Your task to perform on an android device: open app "VLC for Android" (install if not already installed) Image 0: 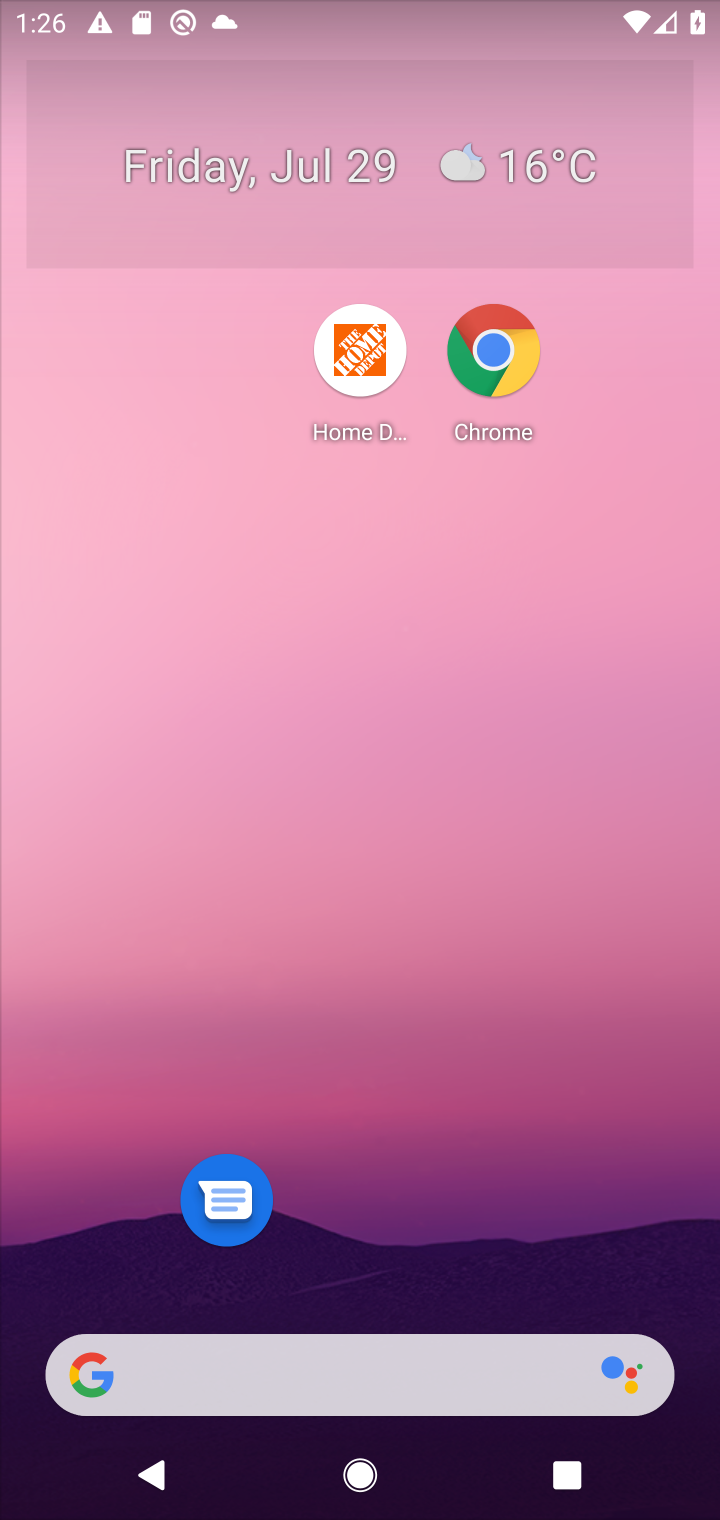
Step 0: drag from (464, 1292) to (503, 122)
Your task to perform on an android device: open app "VLC for Android" (install if not already installed) Image 1: 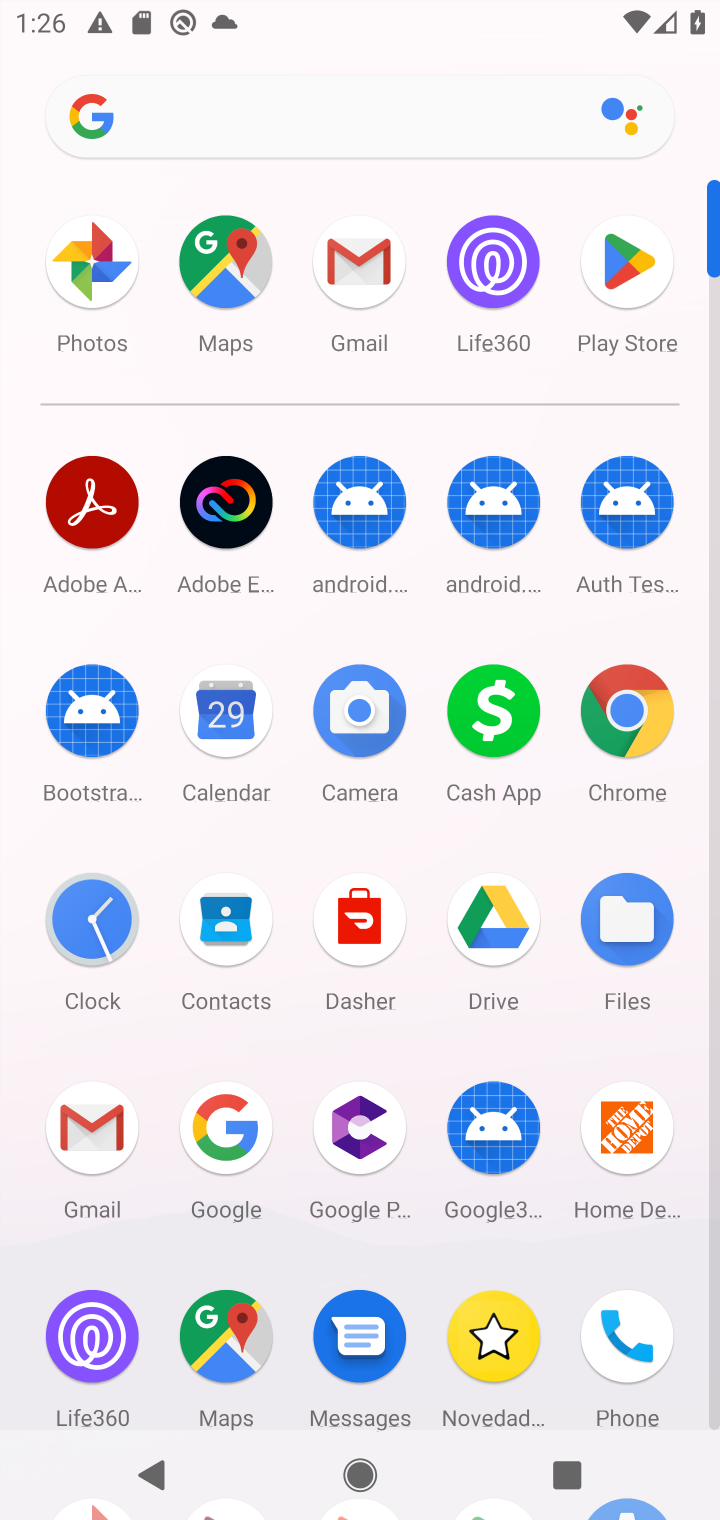
Step 1: click (618, 252)
Your task to perform on an android device: open app "VLC for Android" (install if not already installed) Image 2: 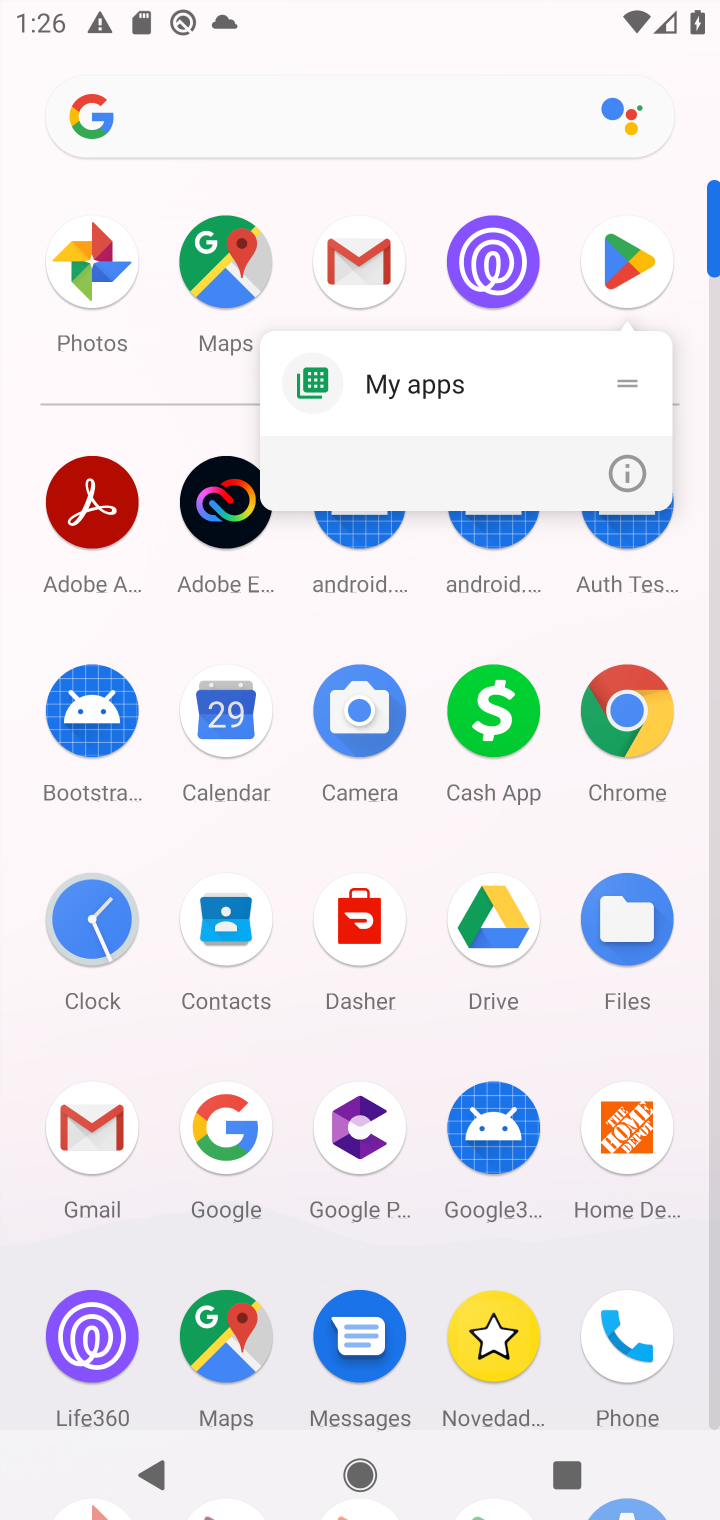
Step 2: click (614, 263)
Your task to perform on an android device: open app "VLC for Android" (install if not already installed) Image 3: 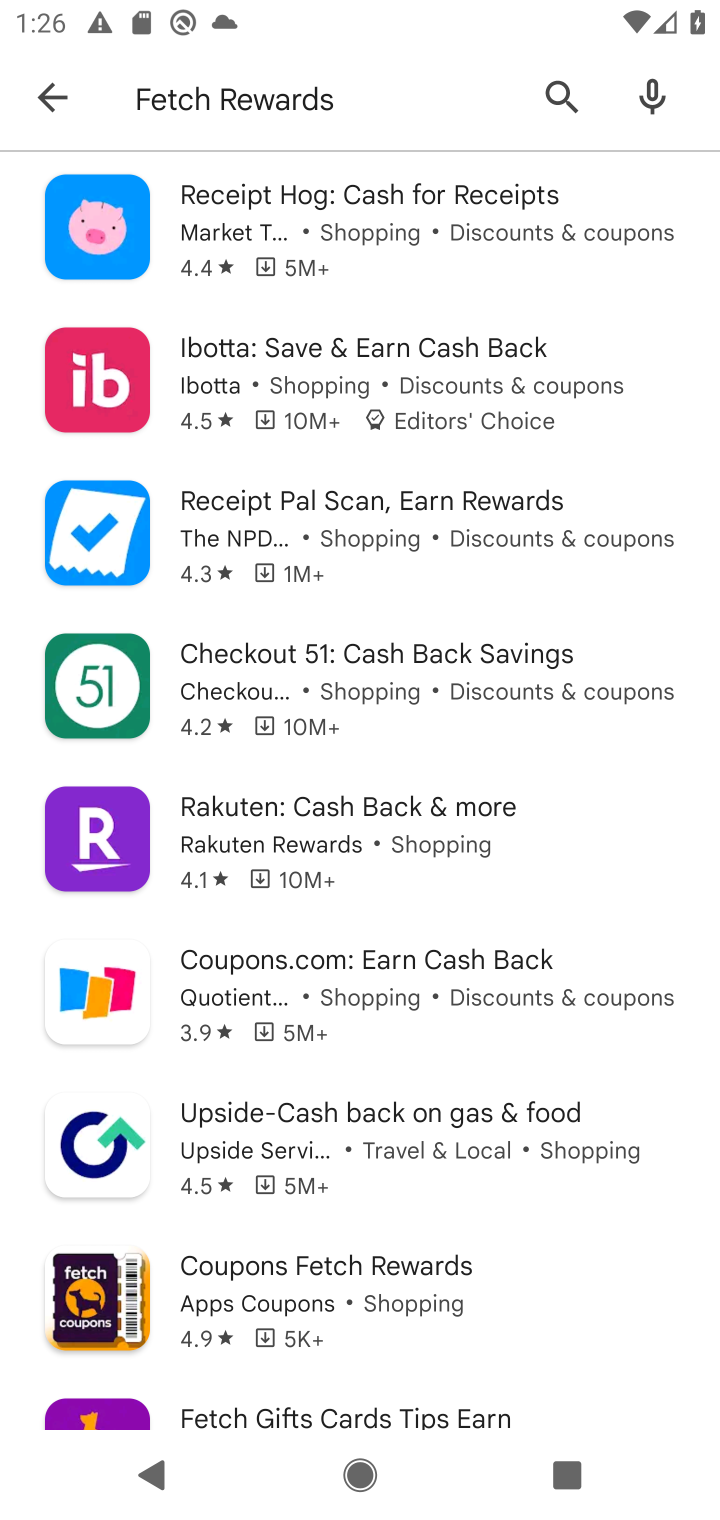
Step 3: click (351, 120)
Your task to perform on an android device: open app "VLC for Android" (install if not already installed) Image 4: 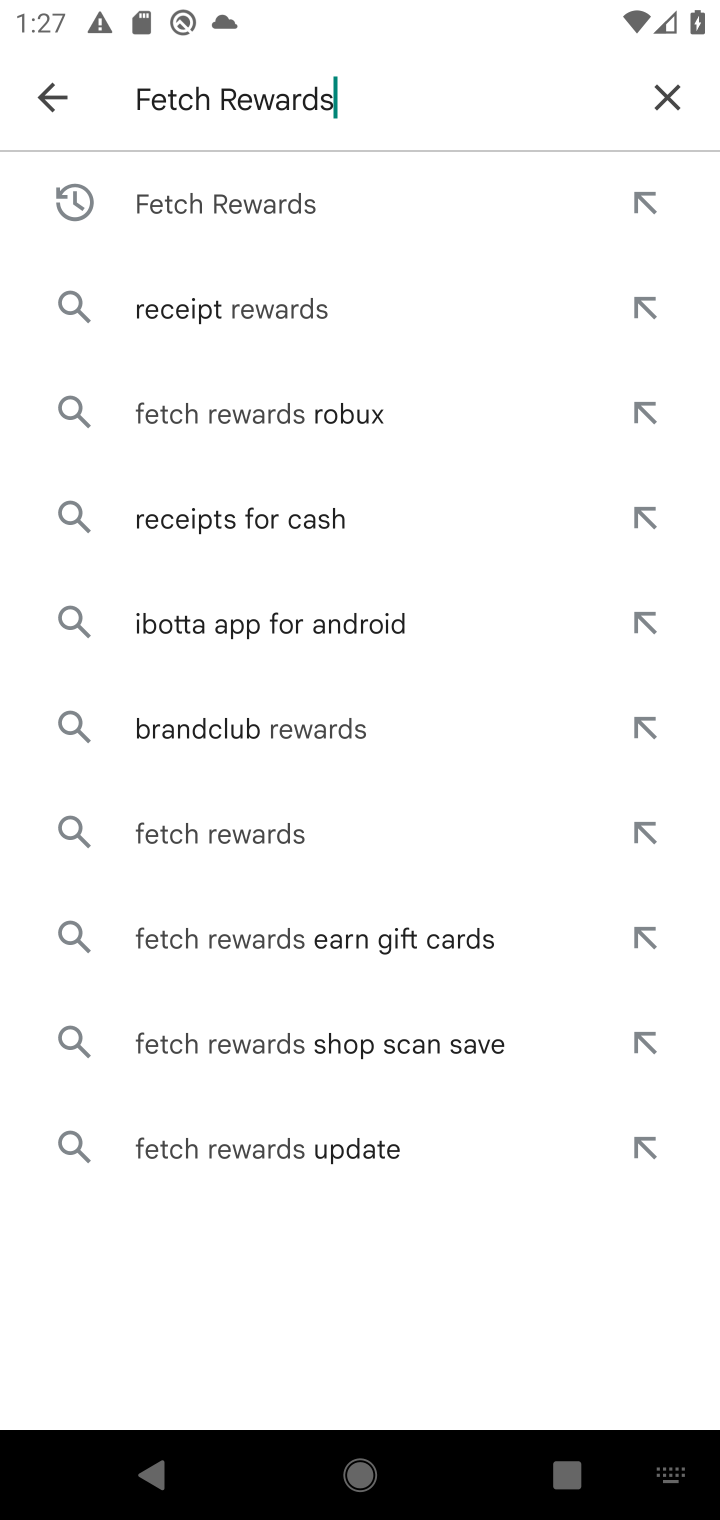
Step 4: click (658, 77)
Your task to perform on an android device: open app "VLC for Android" (install if not already installed) Image 5: 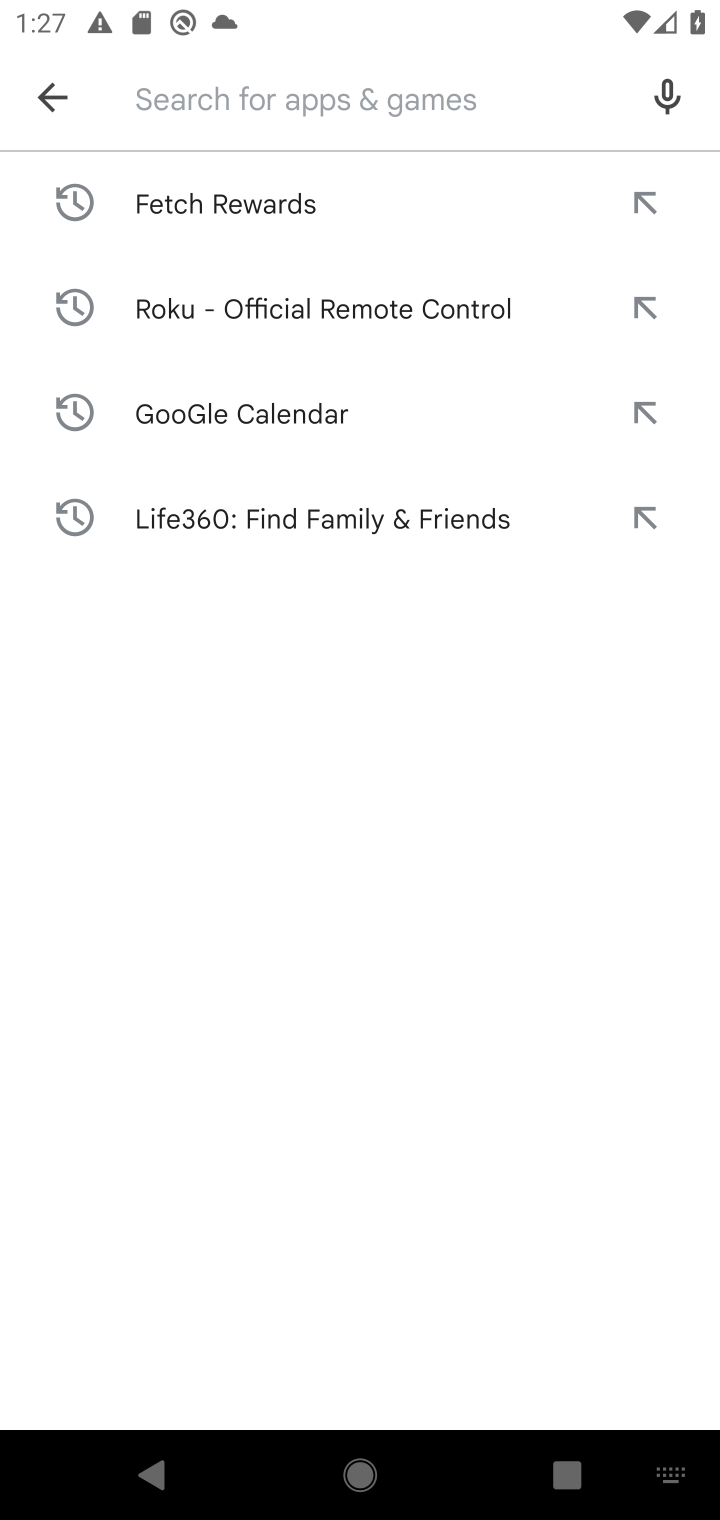
Step 5: type "VLC for Android"
Your task to perform on an android device: open app "VLC for Android" (install if not already installed) Image 6: 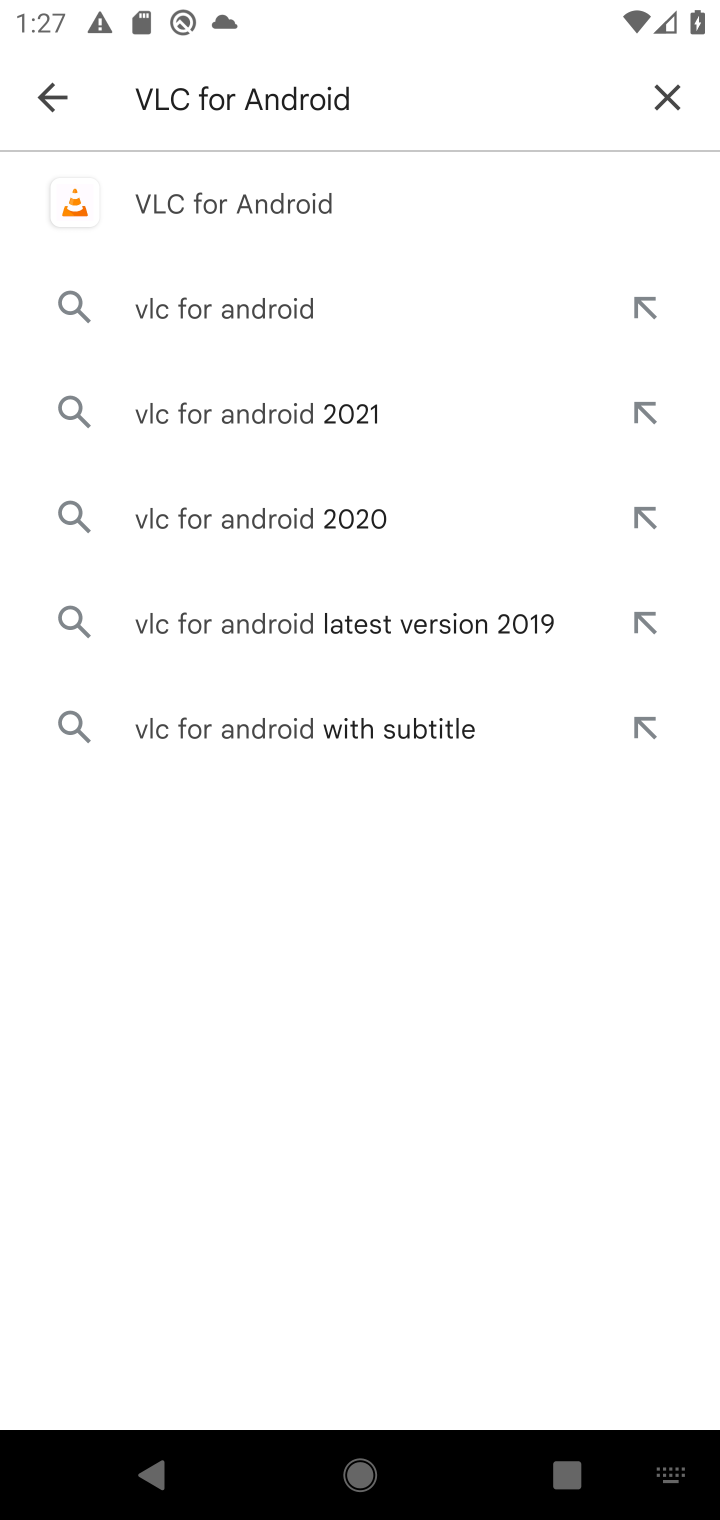
Step 6: press enter
Your task to perform on an android device: open app "VLC for Android" (install if not already installed) Image 7: 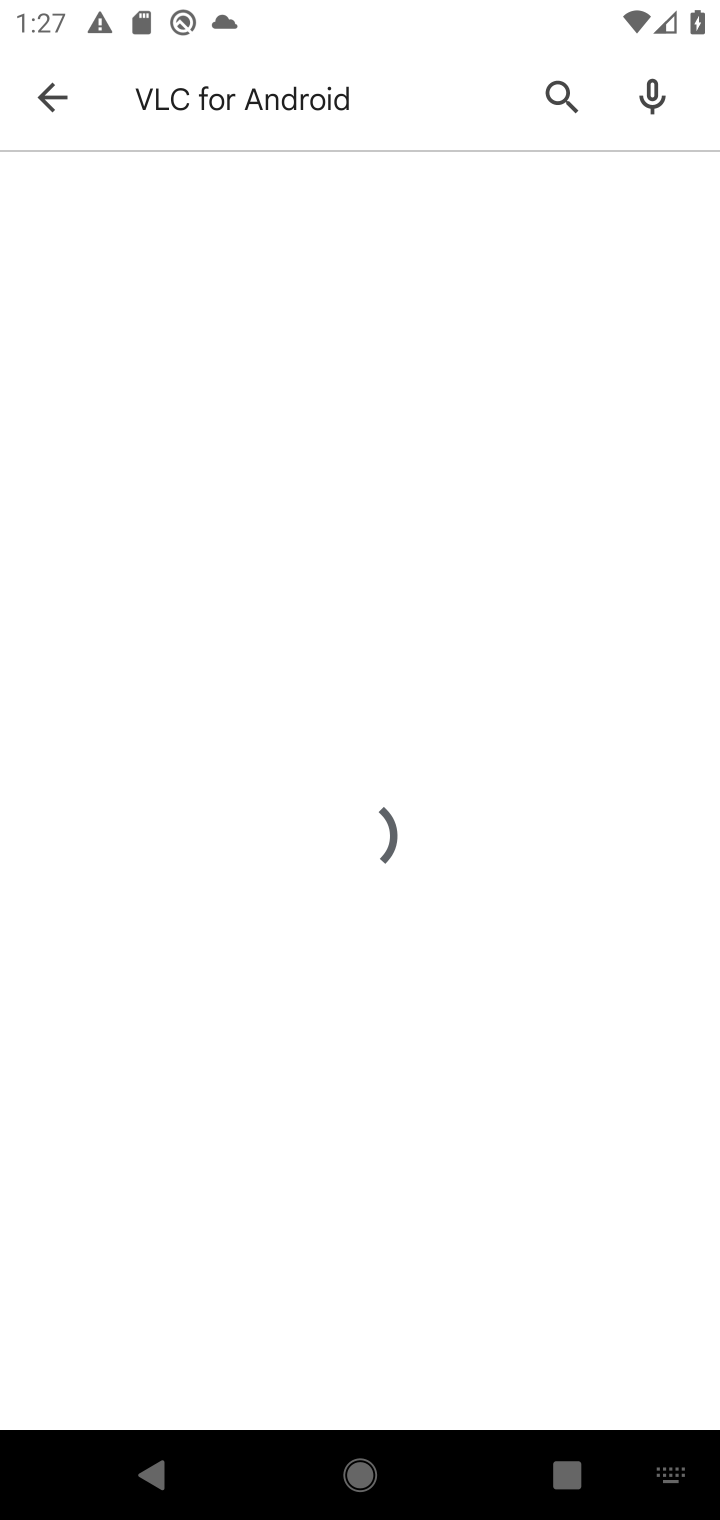
Step 7: press enter
Your task to perform on an android device: open app "VLC for Android" (install if not already installed) Image 8: 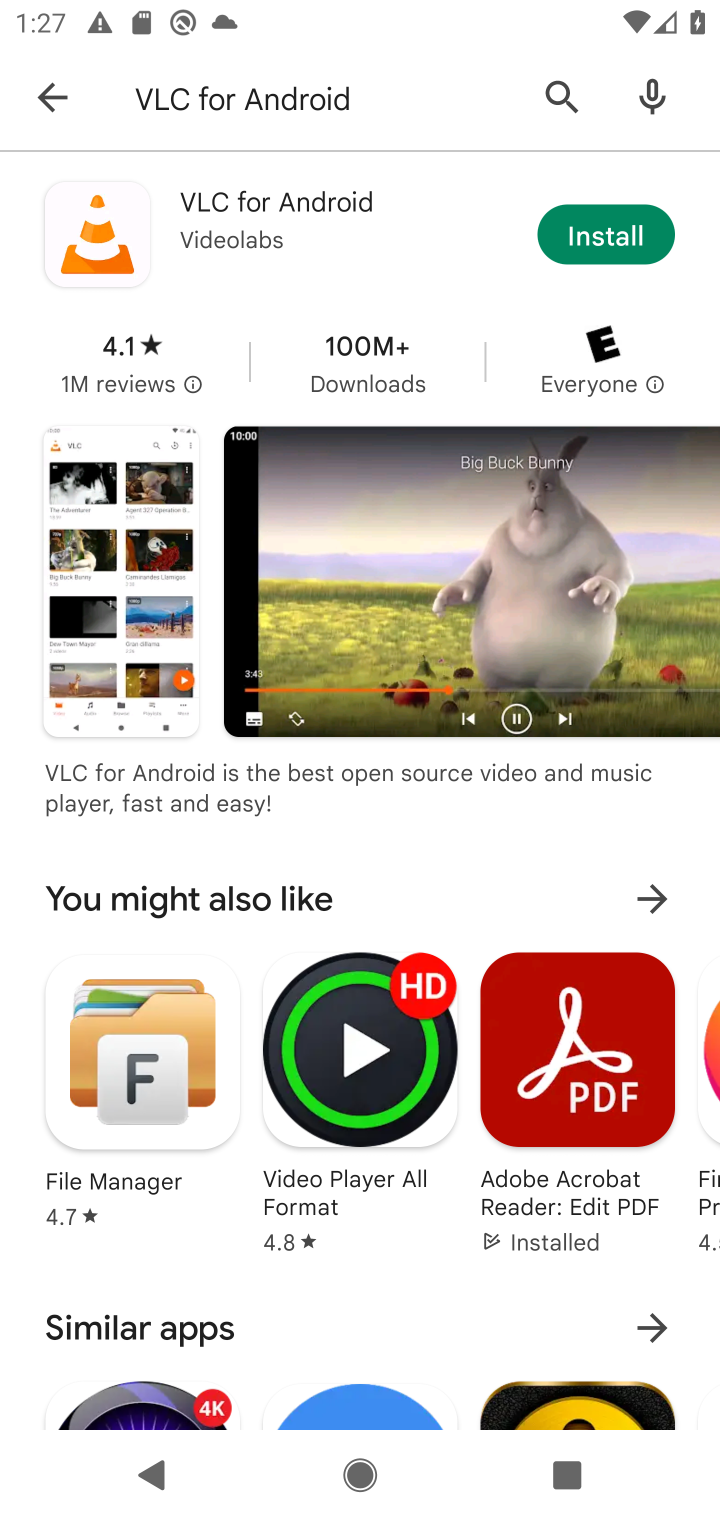
Step 8: press enter
Your task to perform on an android device: open app "VLC for Android" (install if not already installed) Image 9: 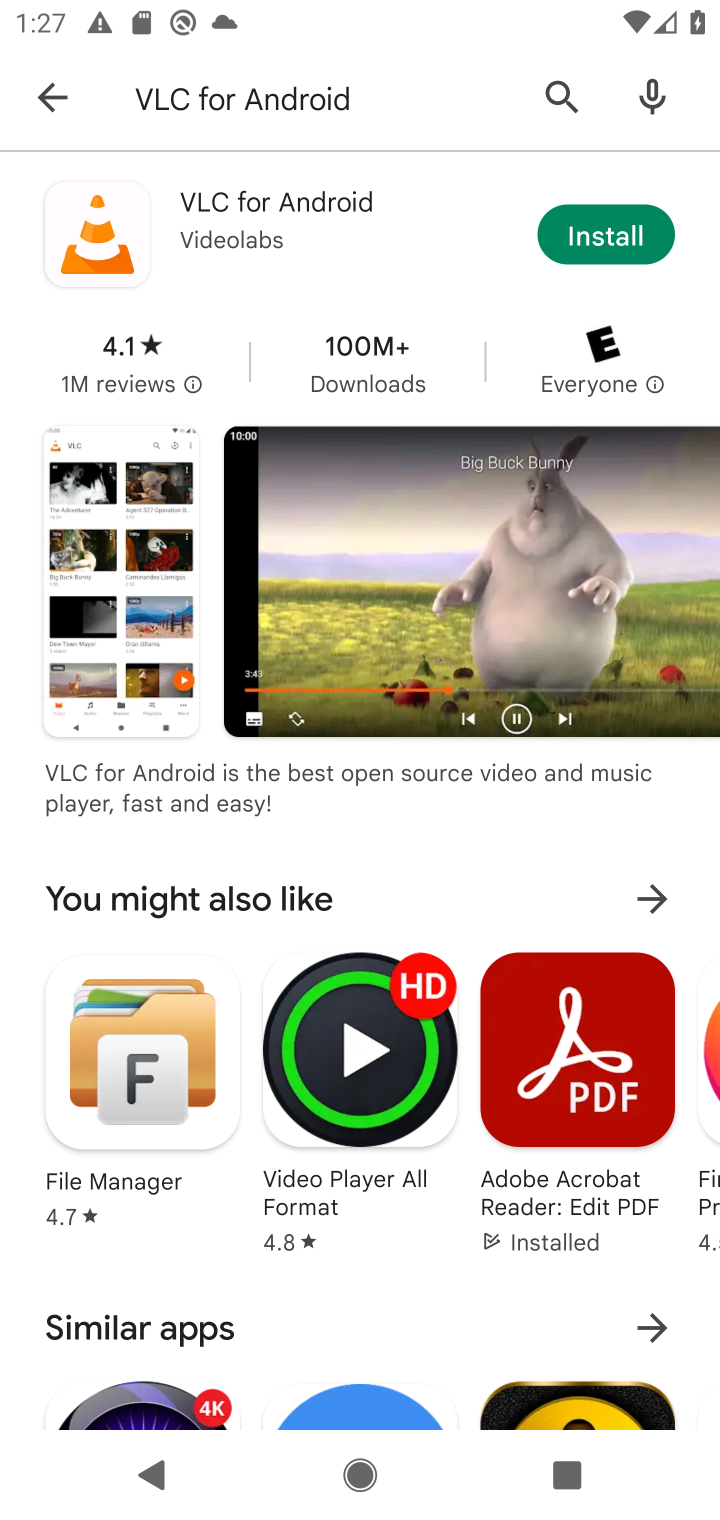
Step 9: click (312, 218)
Your task to perform on an android device: open app "VLC for Android" (install if not already installed) Image 10: 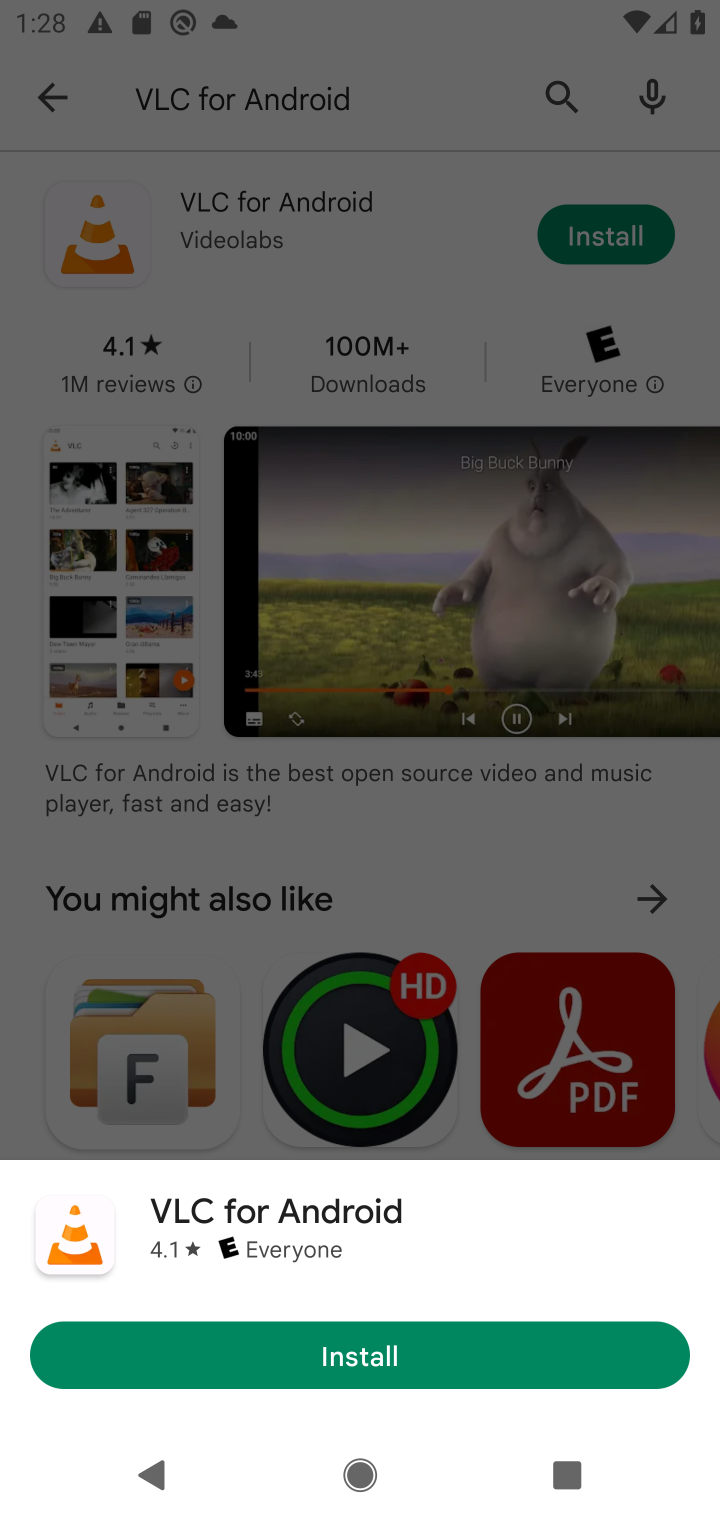
Step 10: click (418, 1375)
Your task to perform on an android device: open app "VLC for Android" (install if not already installed) Image 11: 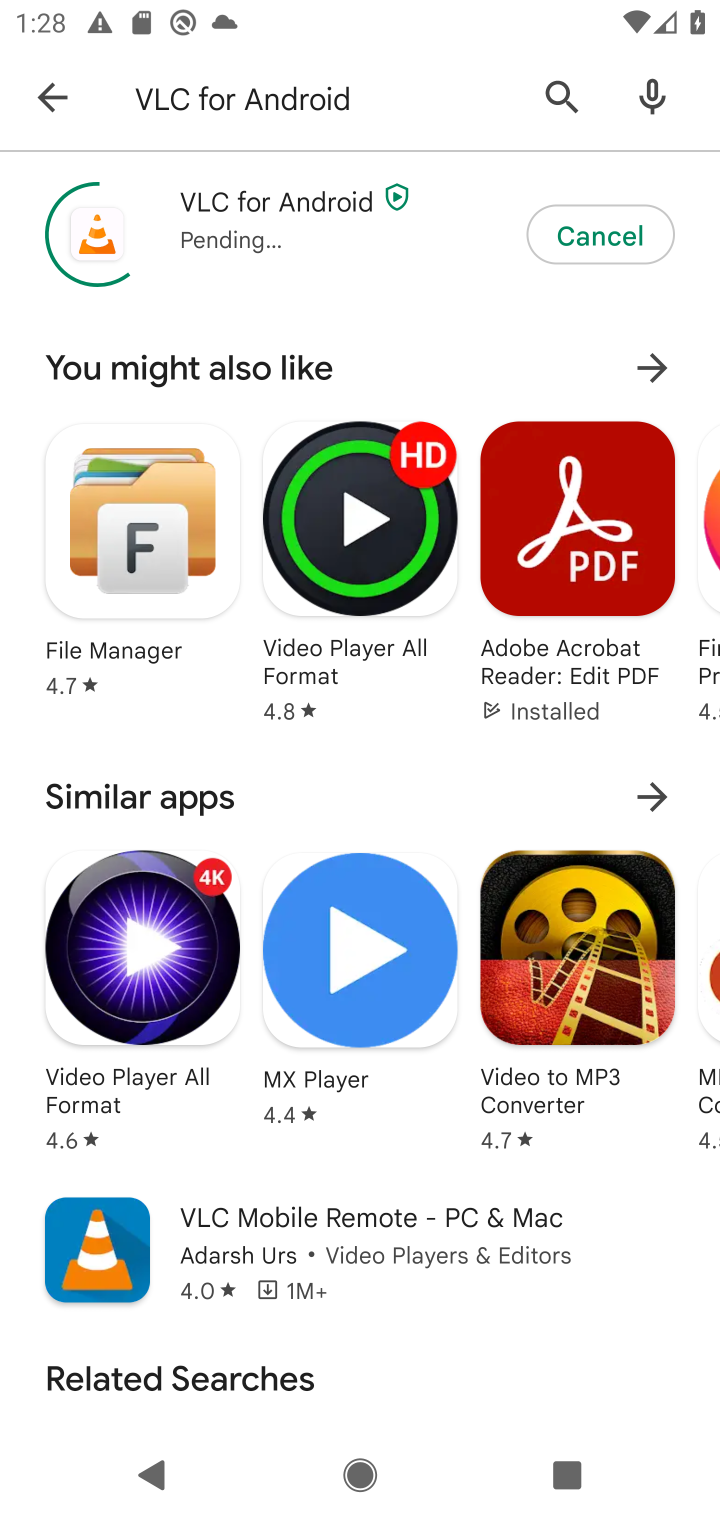
Step 11: click (330, 202)
Your task to perform on an android device: open app "VLC for Android" (install if not already installed) Image 12: 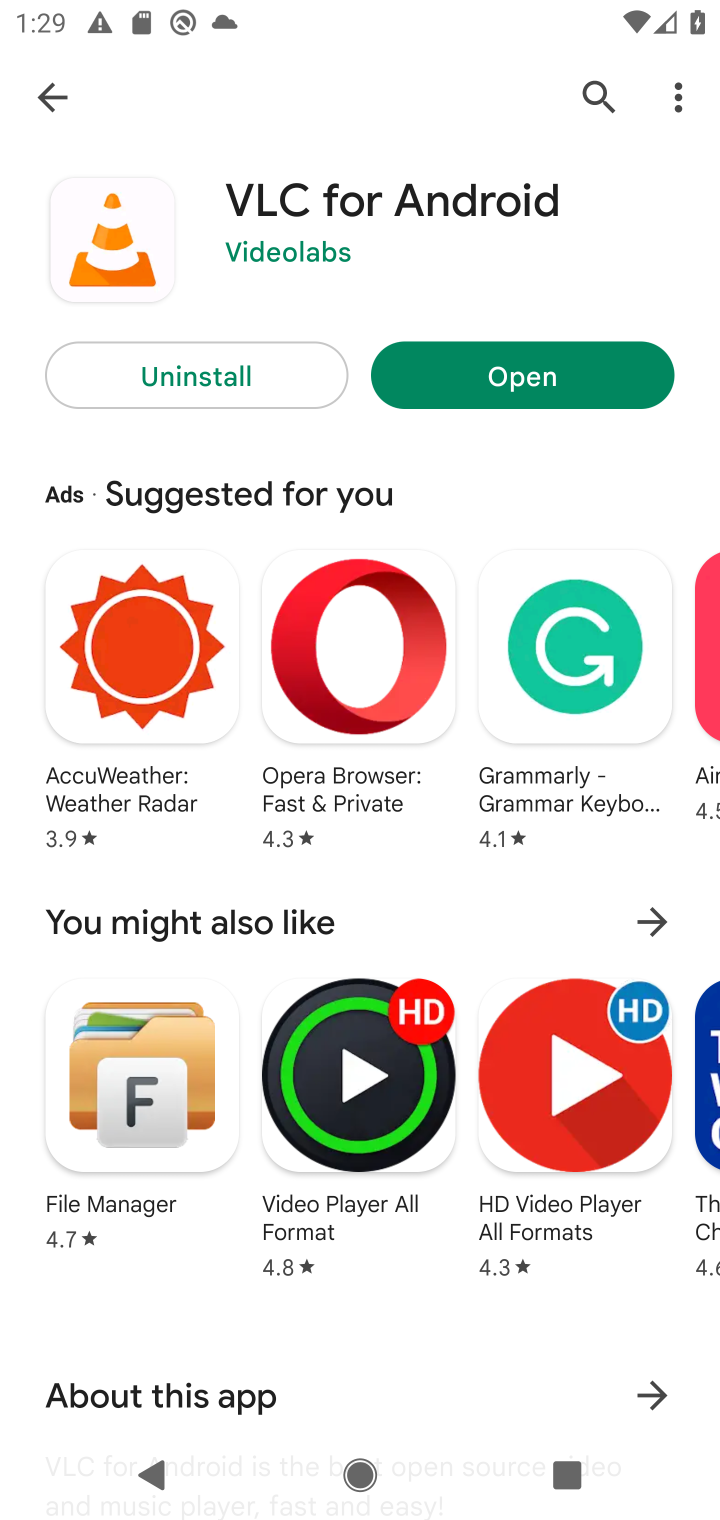
Step 12: click (588, 356)
Your task to perform on an android device: open app "VLC for Android" (install if not already installed) Image 13: 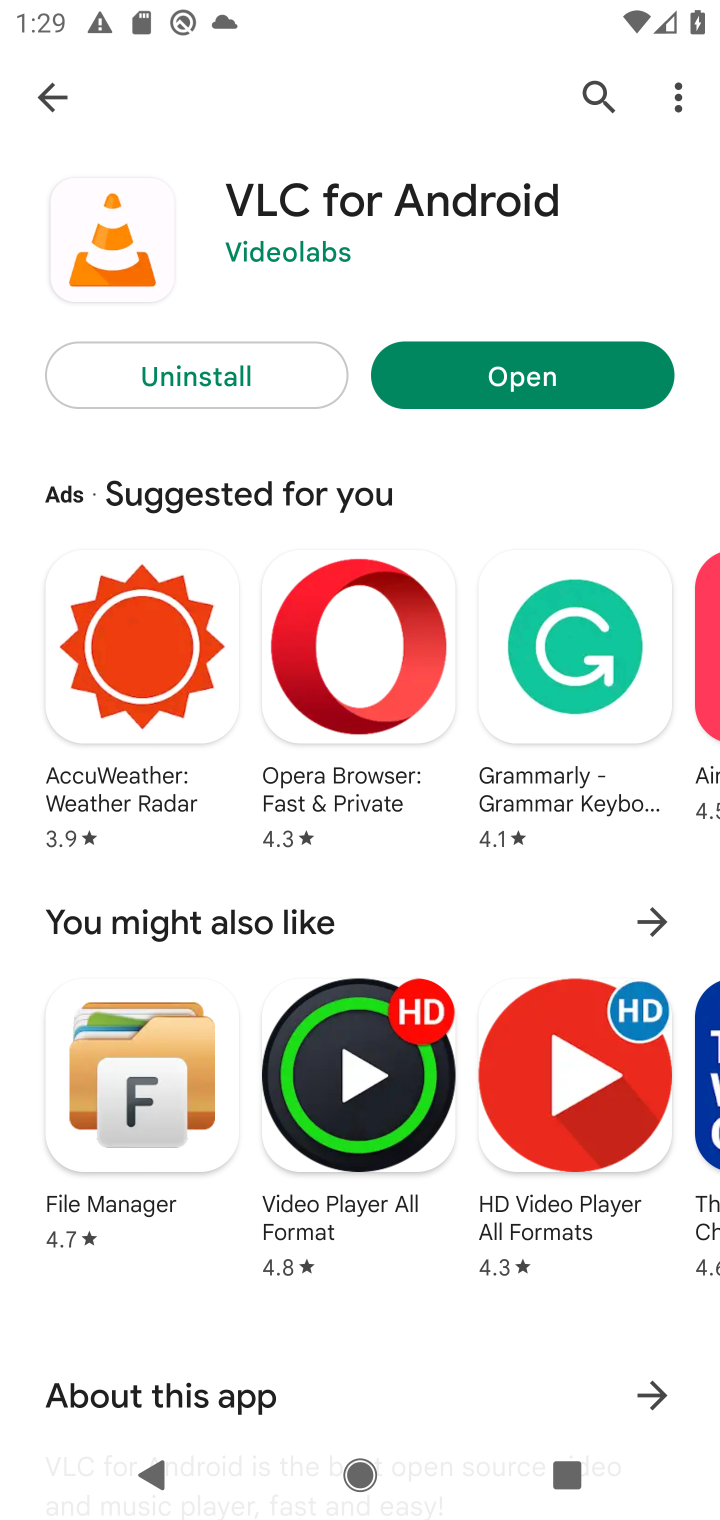
Step 13: click (577, 370)
Your task to perform on an android device: open app "VLC for Android" (install if not already installed) Image 14: 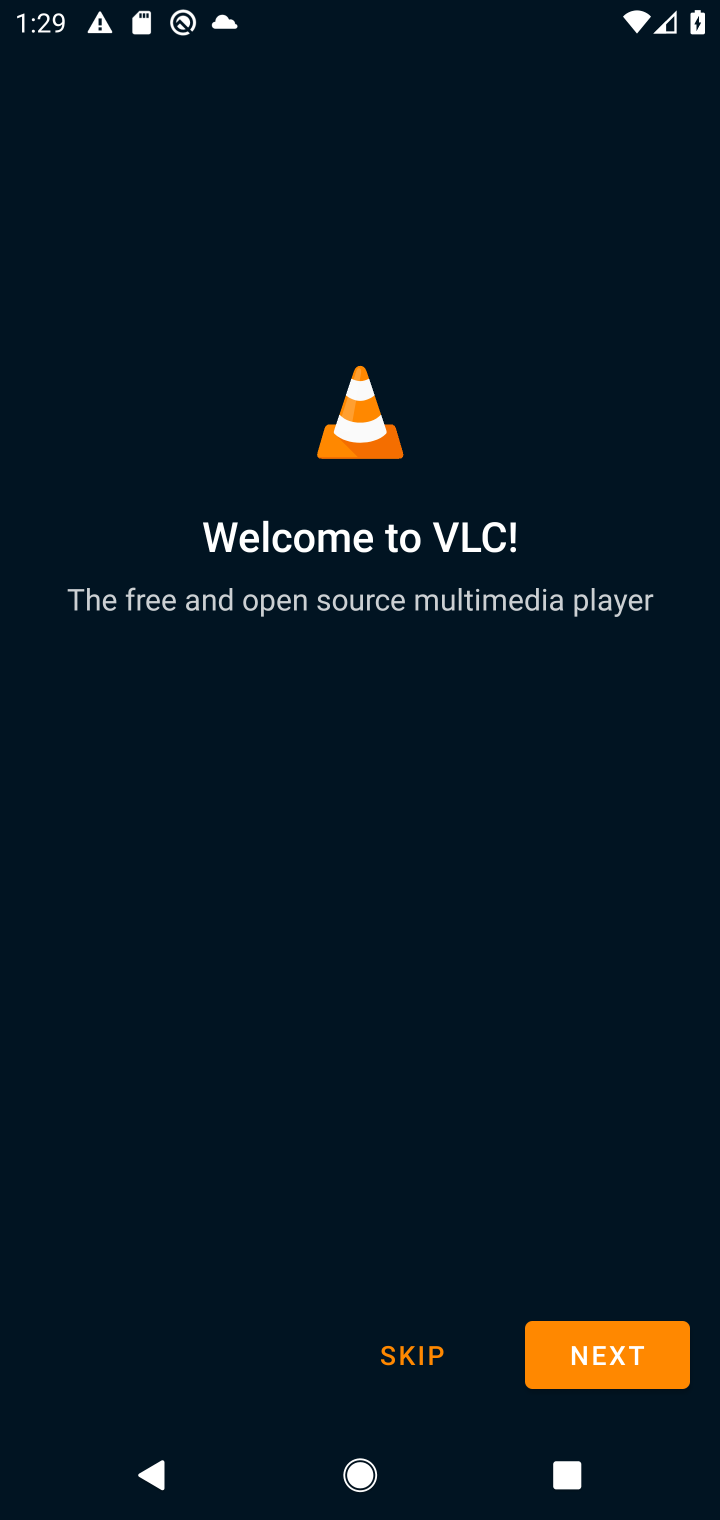
Step 14: task complete